Your task to perform on an android device: open app "Pandora - Music & Podcasts" (install if not already installed) Image 0: 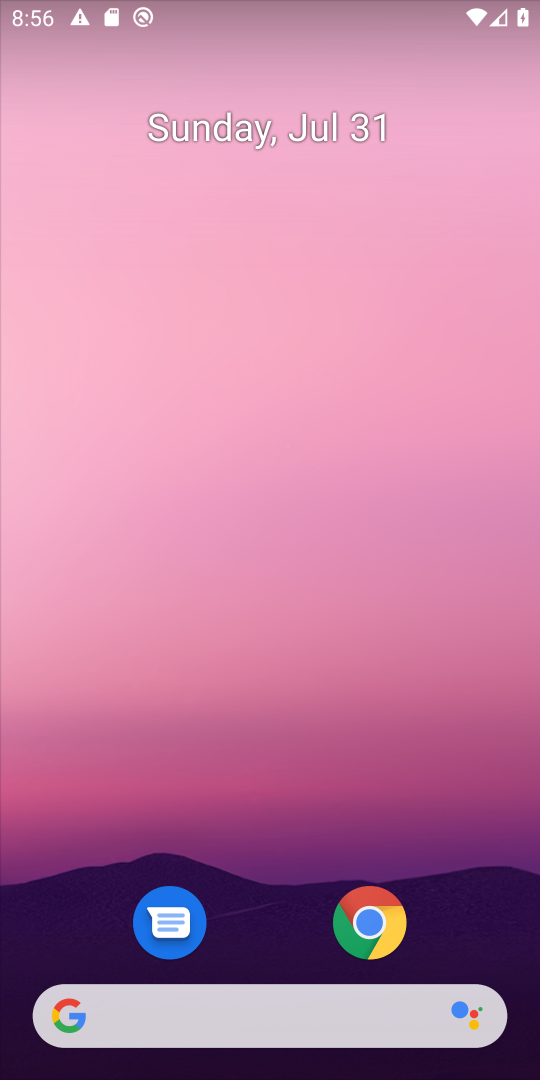
Step 0: drag from (283, 661) to (265, 7)
Your task to perform on an android device: open app "Pandora - Music & Podcasts" (install if not already installed) Image 1: 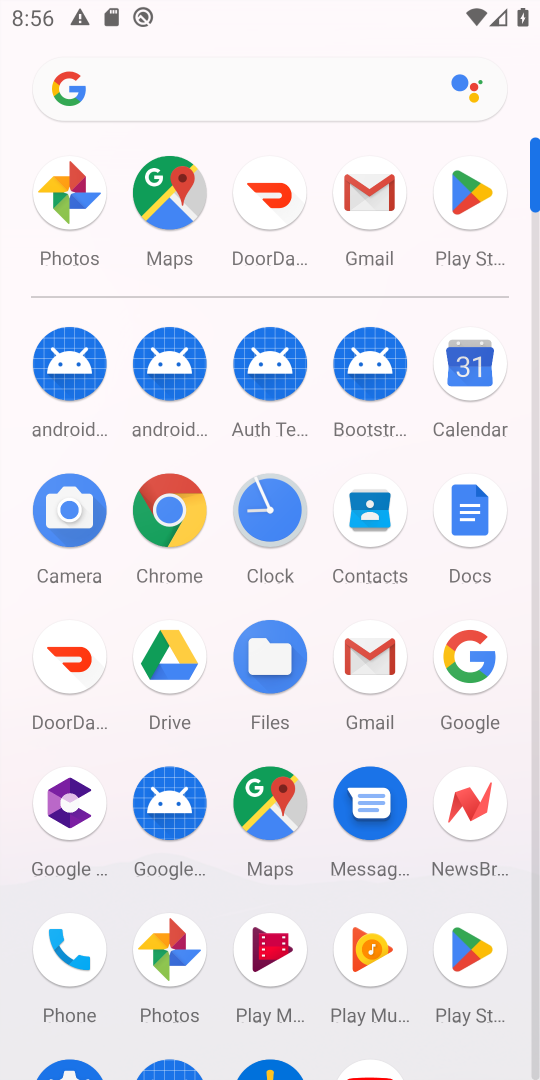
Step 1: click (480, 955)
Your task to perform on an android device: open app "Pandora - Music & Podcasts" (install if not already installed) Image 2: 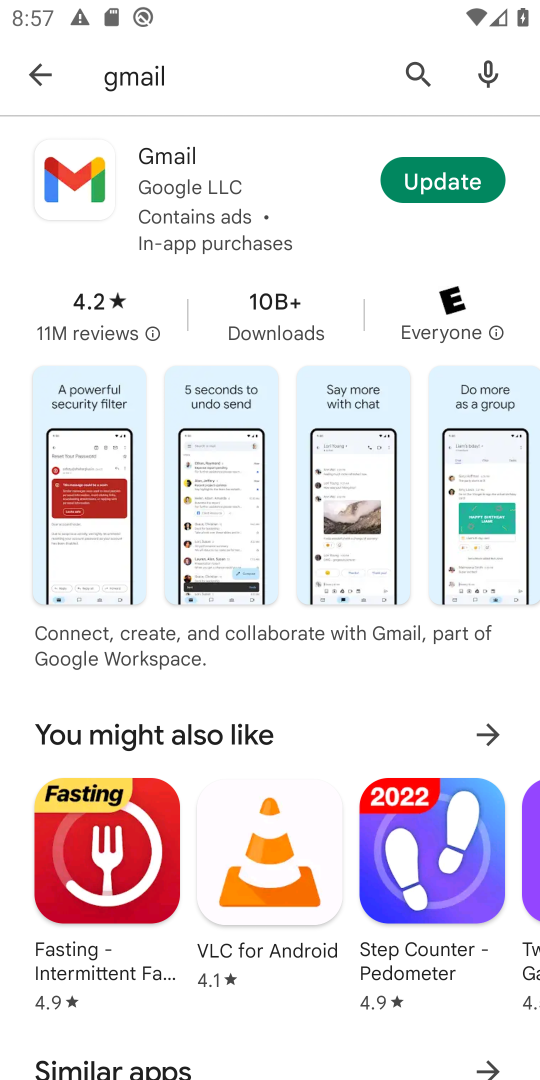
Step 2: click (400, 61)
Your task to perform on an android device: open app "Pandora - Music & Podcasts" (install if not already installed) Image 3: 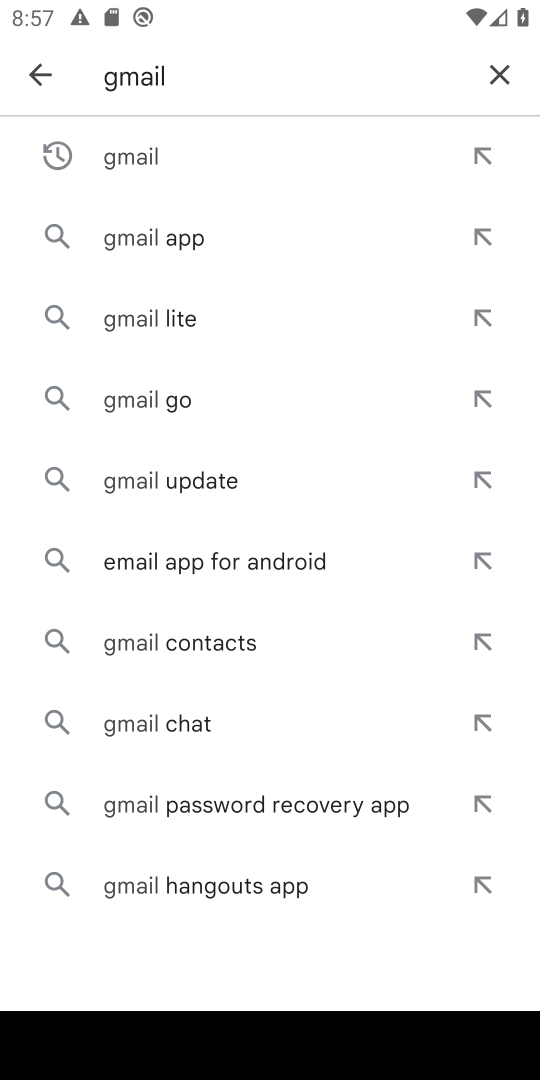
Step 3: click (503, 76)
Your task to perform on an android device: open app "Pandora - Music & Podcasts" (install if not already installed) Image 4: 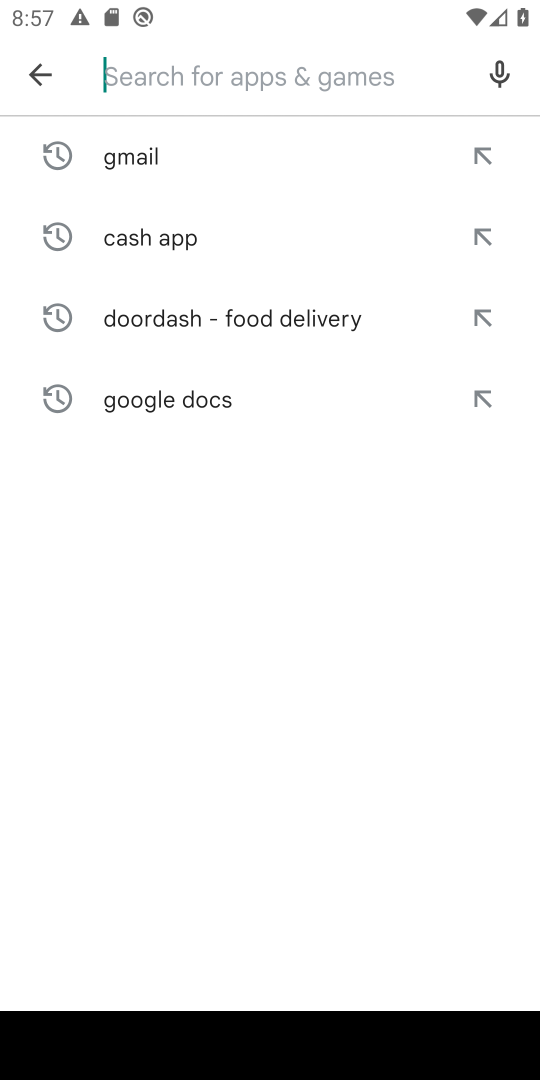
Step 4: type "Pandora - Music & Podcasts"
Your task to perform on an android device: open app "Pandora - Music & Podcasts" (install if not already installed) Image 5: 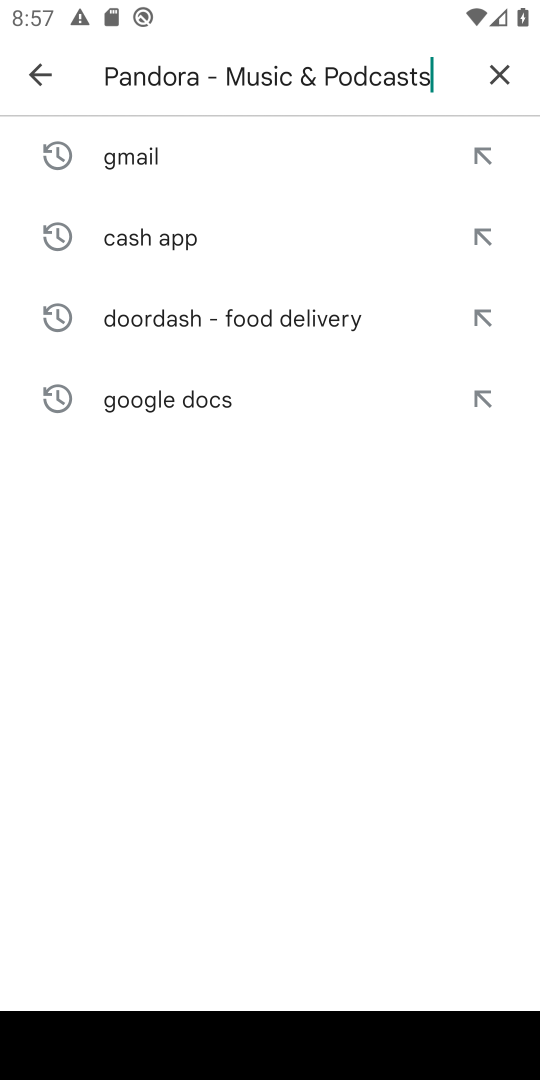
Step 5: type ""
Your task to perform on an android device: open app "Pandora - Music & Podcasts" (install if not already installed) Image 6: 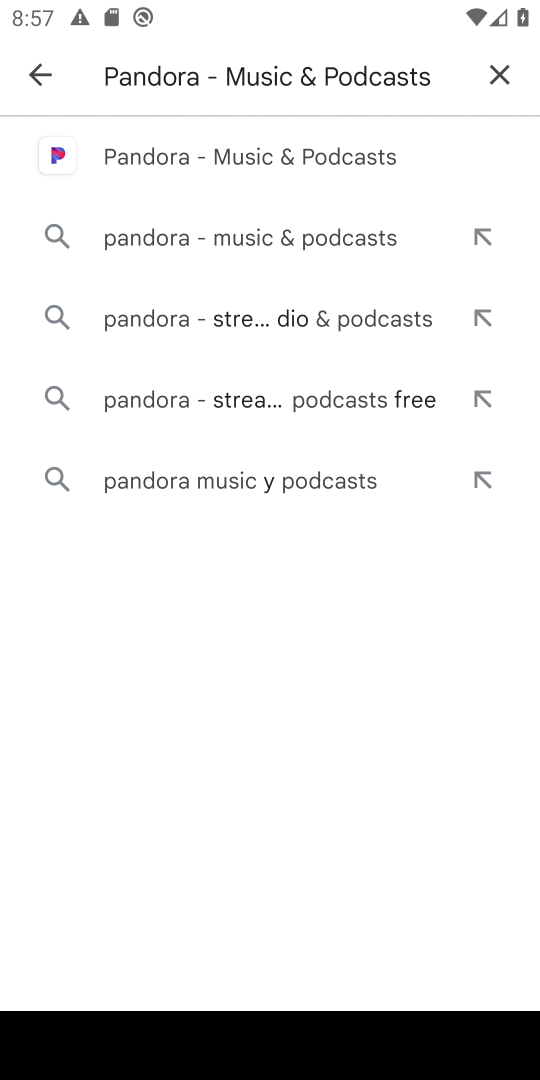
Step 6: click (188, 158)
Your task to perform on an android device: open app "Pandora - Music & Podcasts" (install if not already installed) Image 7: 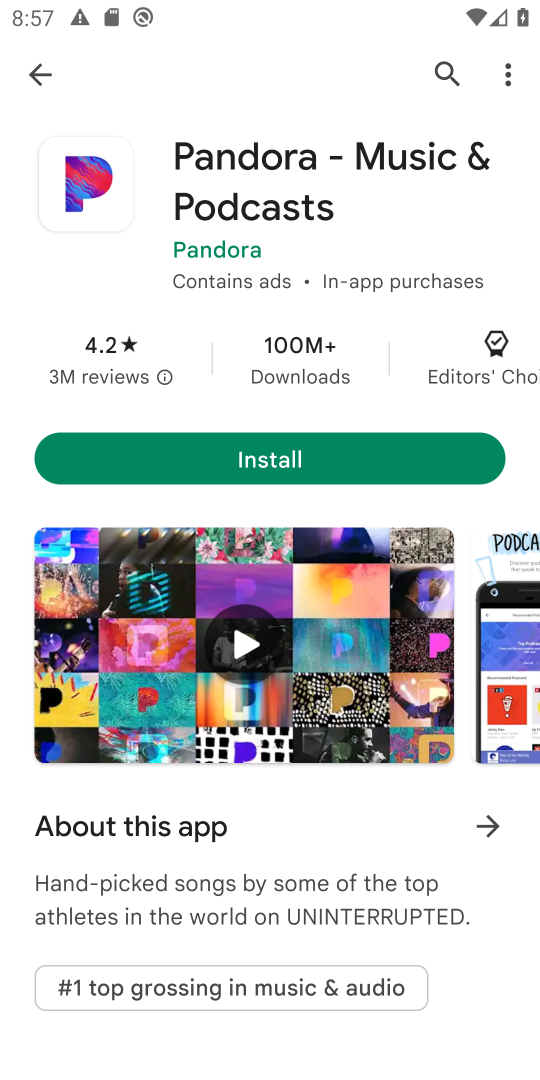
Step 7: click (274, 458)
Your task to perform on an android device: open app "Pandora - Music & Podcasts" (install if not already installed) Image 8: 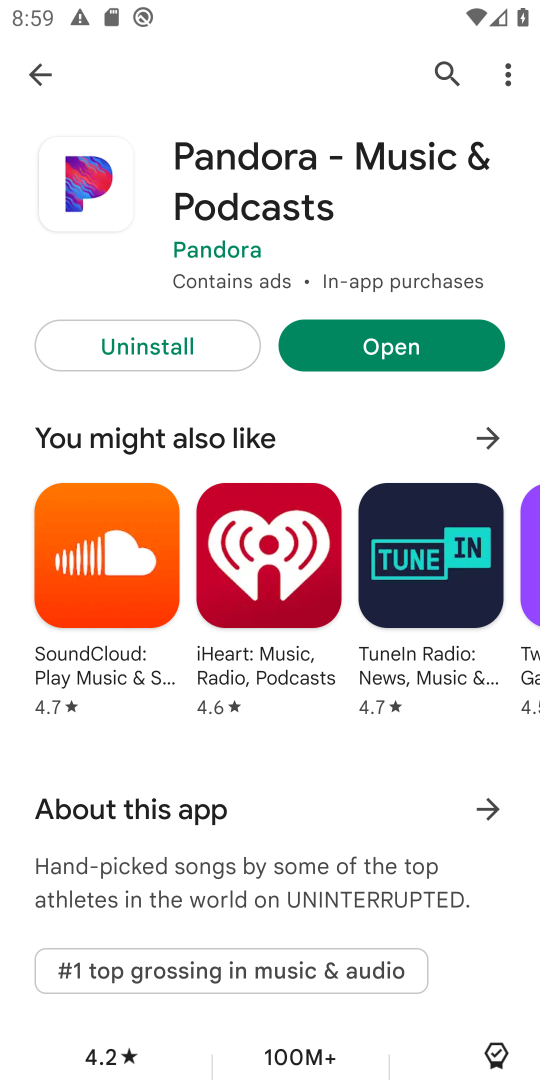
Step 8: task complete